Your task to perform on an android device: Go to privacy settings Image 0: 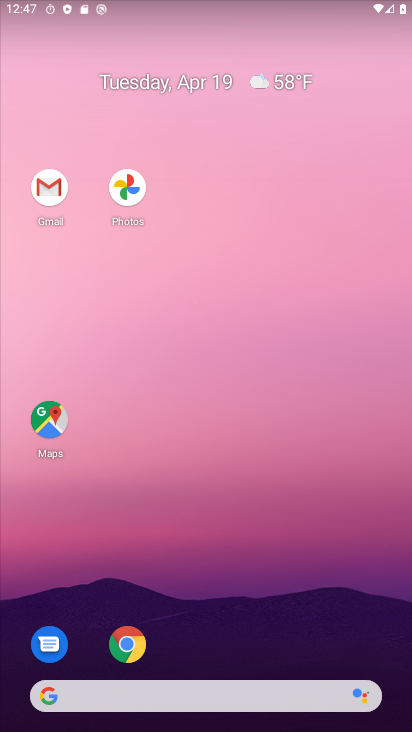
Step 0: click (125, 643)
Your task to perform on an android device: Go to privacy settings Image 1: 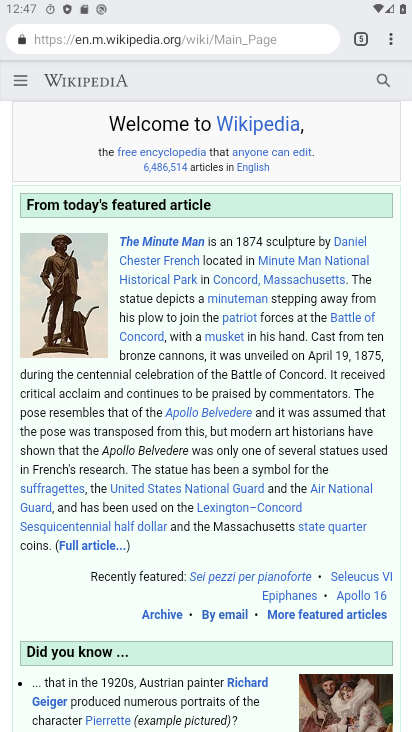
Step 1: click (393, 38)
Your task to perform on an android device: Go to privacy settings Image 2: 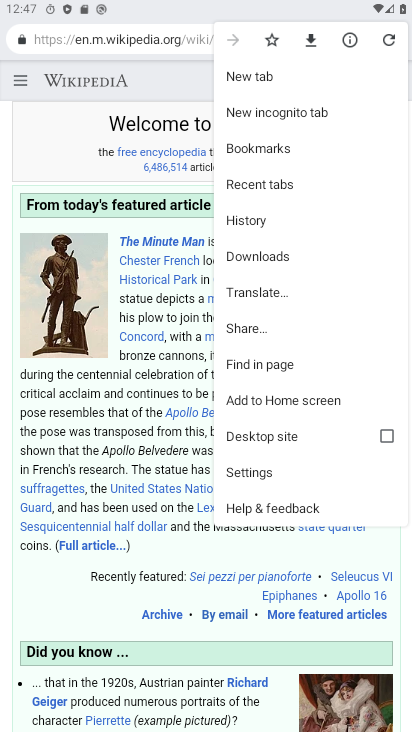
Step 2: click (261, 472)
Your task to perform on an android device: Go to privacy settings Image 3: 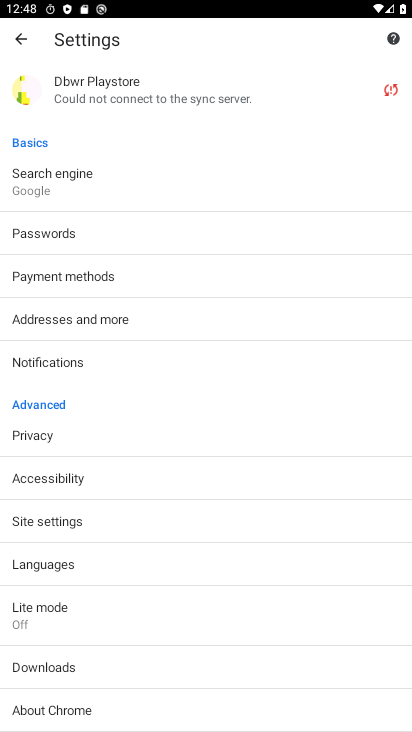
Step 3: click (76, 443)
Your task to perform on an android device: Go to privacy settings Image 4: 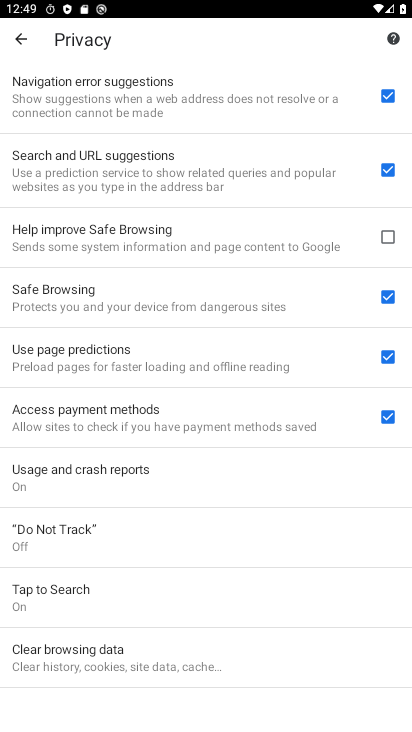
Step 4: task complete